Your task to perform on an android device: turn off javascript in the chrome app Image 0: 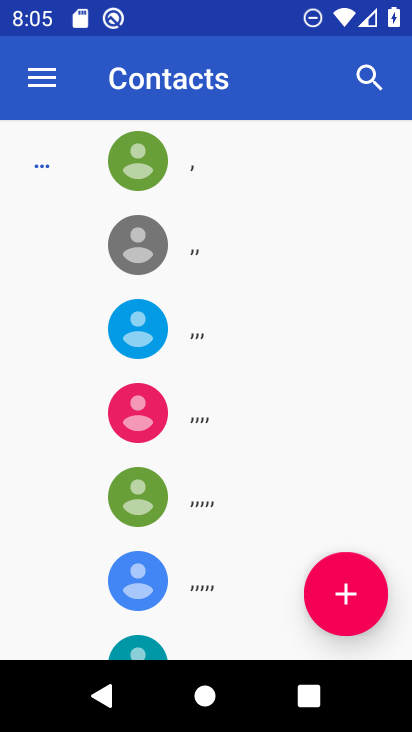
Step 0: press home button
Your task to perform on an android device: turn off javascript in the chrome app Image 1: 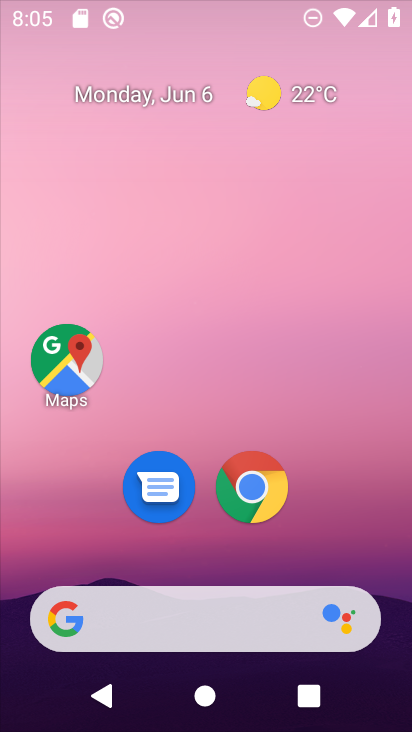
Step 1: drag from (394, 626) to (303, 70)
Your task to perform on an android device: turn off javascript in the chrome app Image 2: 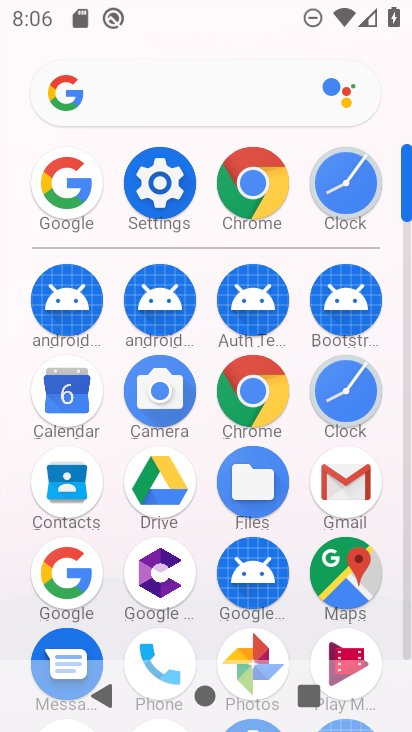
Step 2: click (258, 403)
Your task to perform on an android device: turn off javascript in the chrome app Image 3: 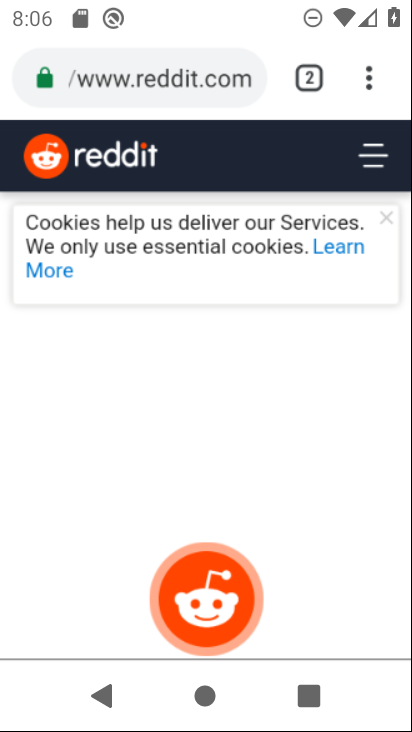
Step 3: press back button
Your task to perform on an android device: turn off javascript in the chrome app Image 4: 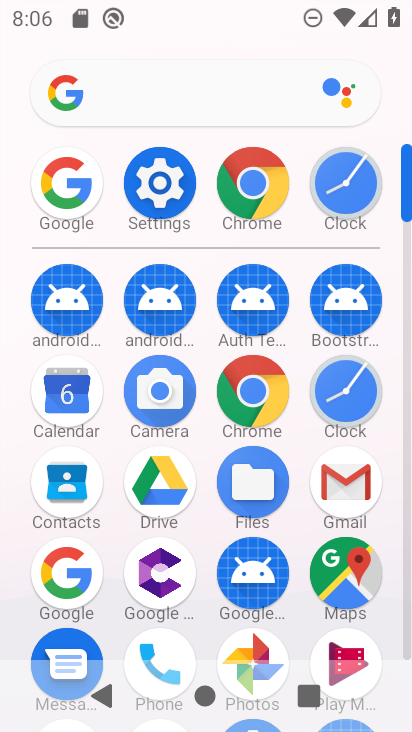
Step 4: click (247, 382)
Your task to perform on an android device: turn off javascript in the chrome app Image 5: 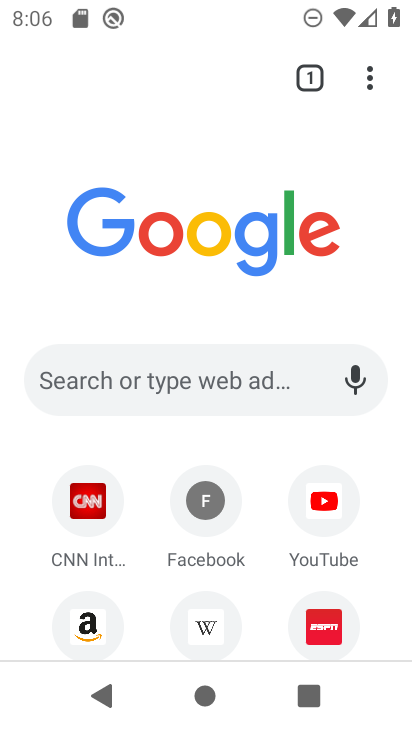
Step 5: click (368, 71)
Your task to perform on an android device: turn off javascript in the chrome app Image 6: 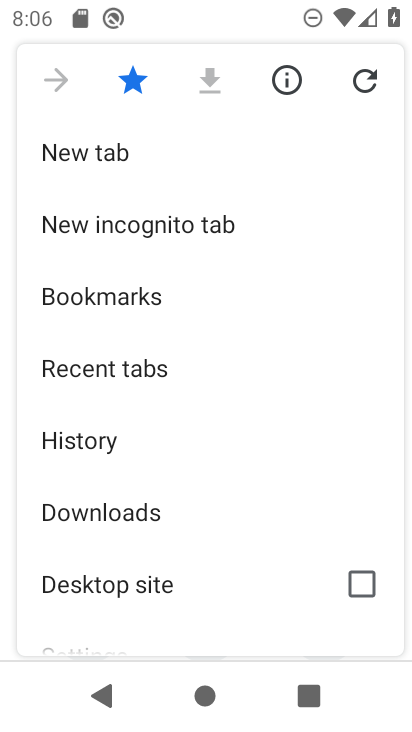
Step 6: drag from (189, 597) to (287, 148)
Your task to perform on an android device: turn off javascript in the chrome app Image 7: 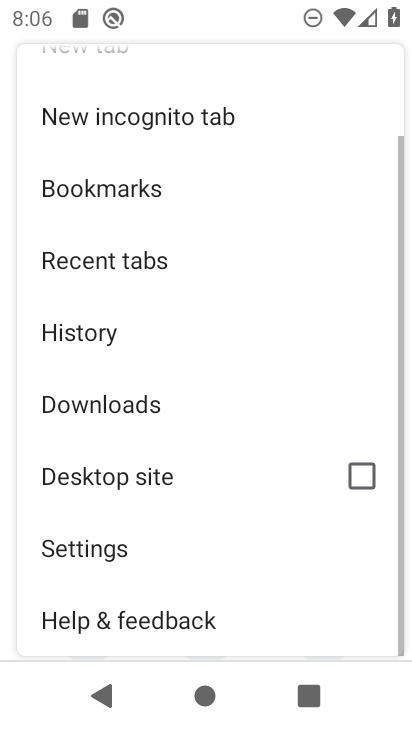
Step 7: click (111, 542)
Your task to perform on an android device: turn off javascript in the chrome app Image 8: 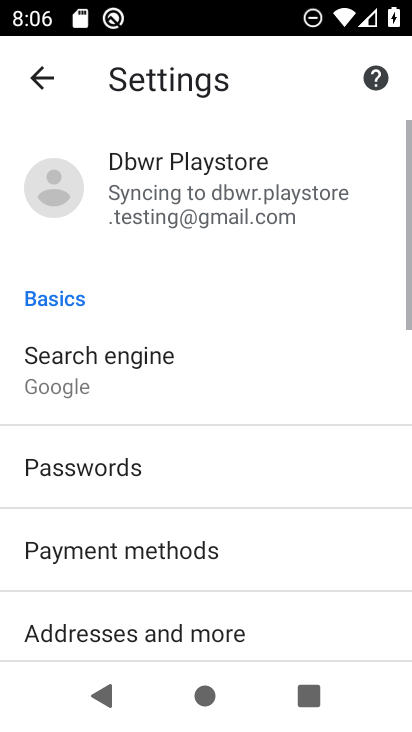
Step 8: drag from (111, 542) to (201, 63)
Your task to perform on an android device: turn off javascript in the chrome app Image 9: 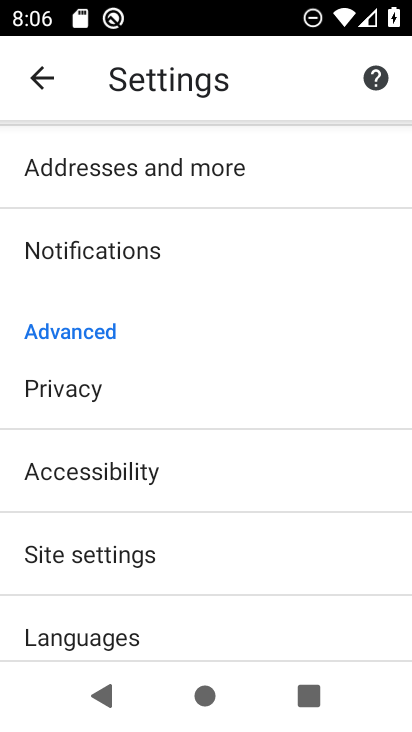
Step 9: click (163, 554)
Your task to perform on an android device: turn off javascript in the chrome app Image 10: 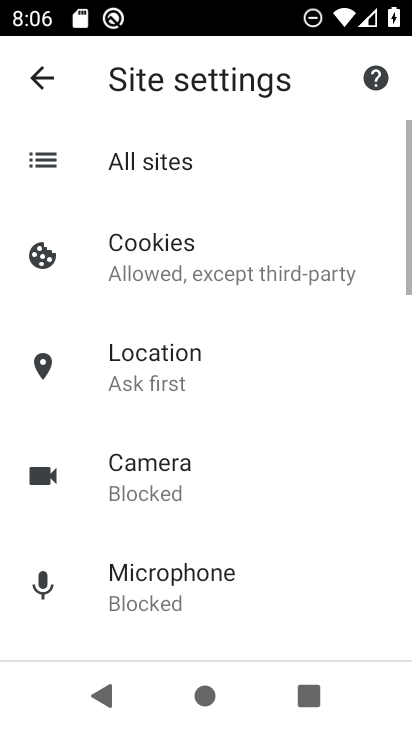
Step 10: drag from (162, 609) to (261, 190)
Your task to perform on an android device: turn off javascript in the chrome app Image 11: 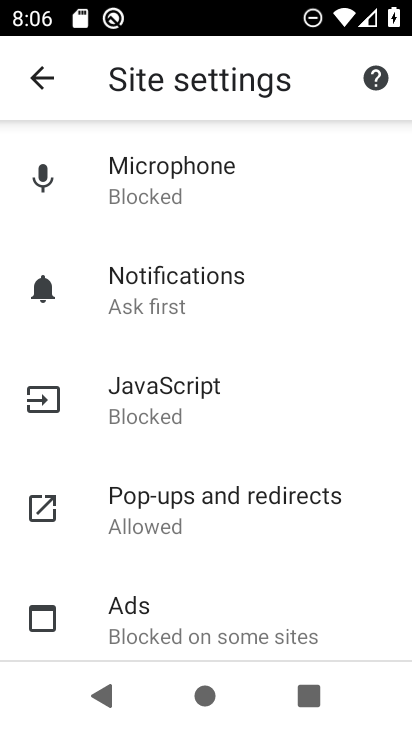
Step 11: click (218, 415)
Your task to perform on an android device: turn off javascript in the chrome app Image 12: 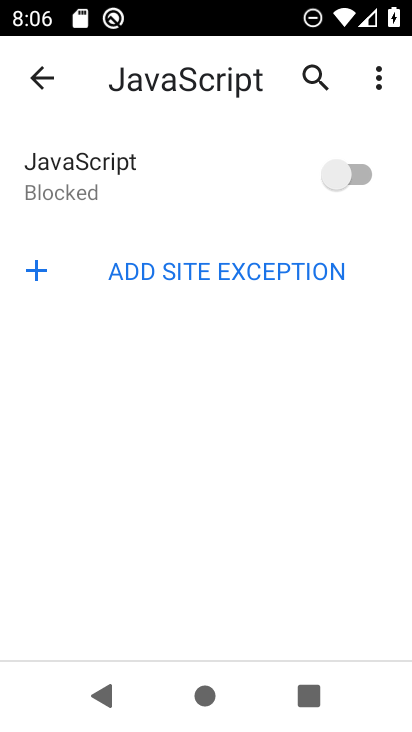
Step 12: task complete